Your task to perform on an android device: turn off notifications settings in the gmail app Image 0: 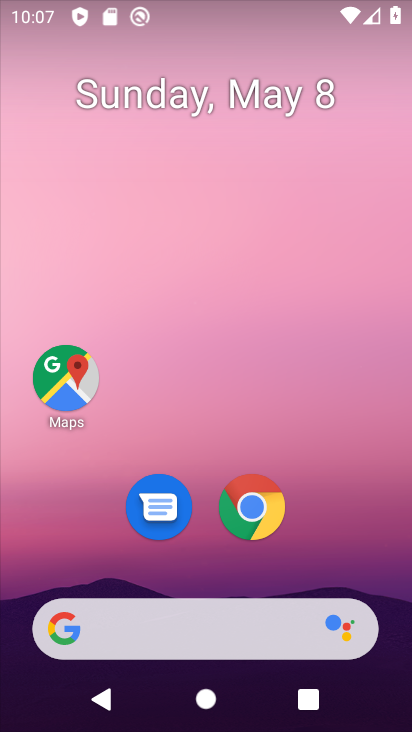
Step 0: drag from (316, 565) to (353, 42)
Your task to perform on an android device: turn off notifications settings in the gmail app Image 1: 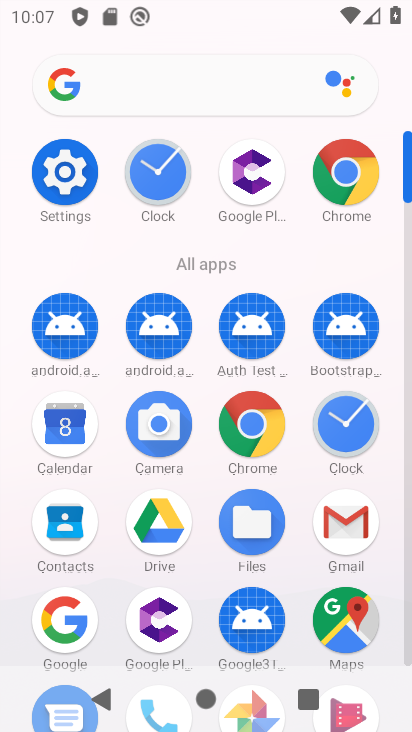
Step 1: click (359, 514)
Your task to perform on an android device: turn off notifications settings in the gmail app Image 2: 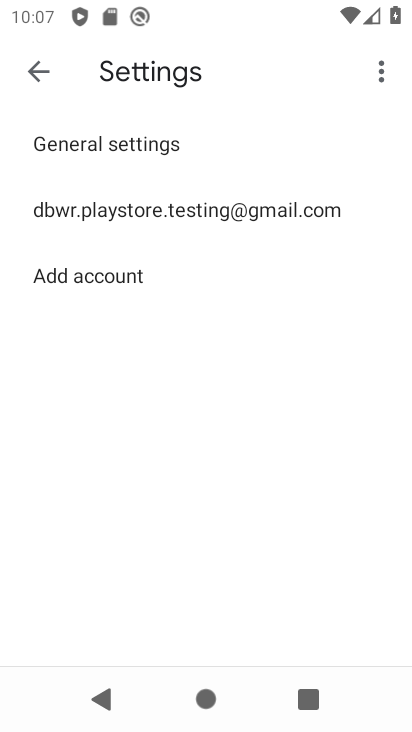
Step 2: click (87, 201)
Your task to perform on an android device: turn off notifications settings in the gmail app Image 3: 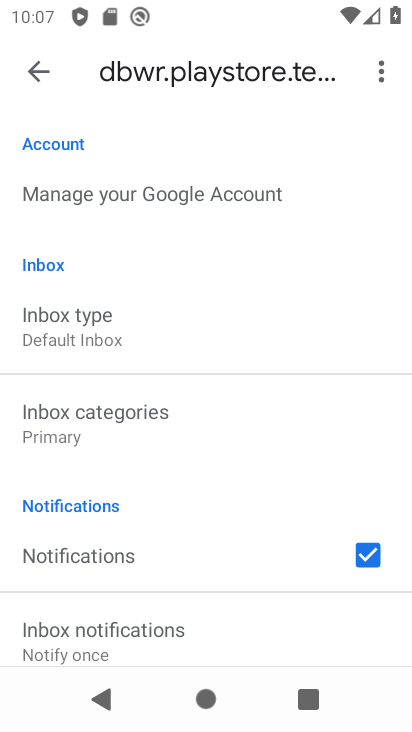
Step 3: drag from (93, 594) to (75, 442)
Your task to perform on an android device: turn off notifications settings in the gmail app Image 4: 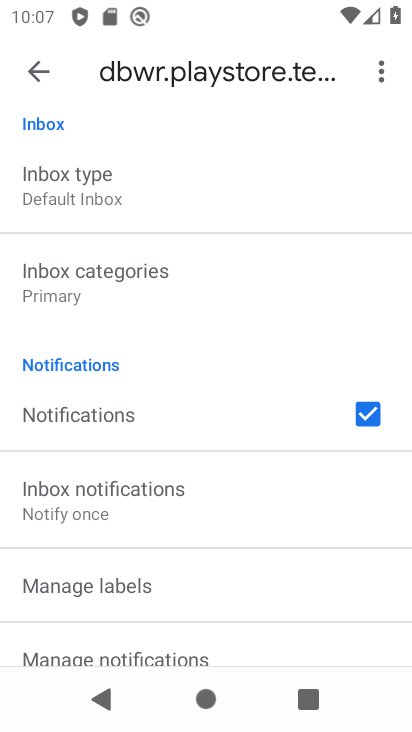
Step 4: click (93, 656)
Your task to perform on an android device: turn off notifications settings in the gmail app Image 5: 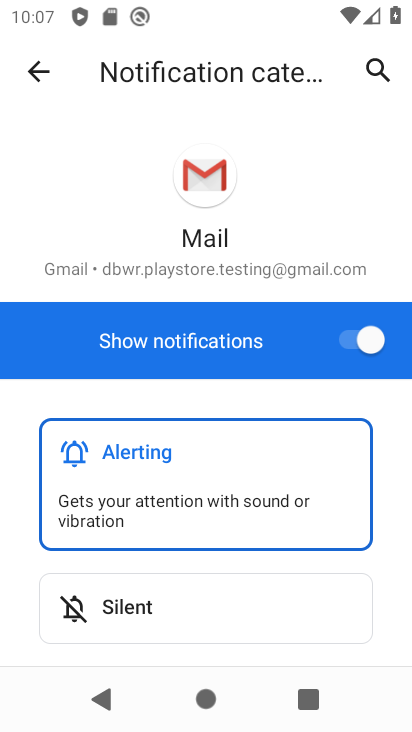
Step 5: click (344, 334)
Your task to perform on an android device: turn off notifications settings in the gmail app Image 6: 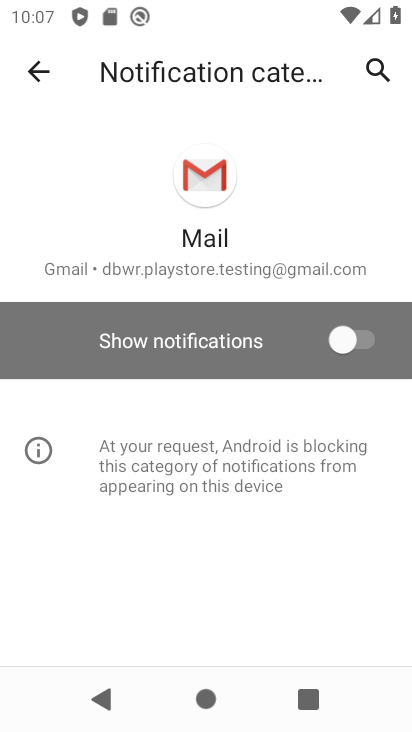
Step 6: task complete